Your task to perform on an android device: Search for seafood restaurants on Google Maps Image 0: 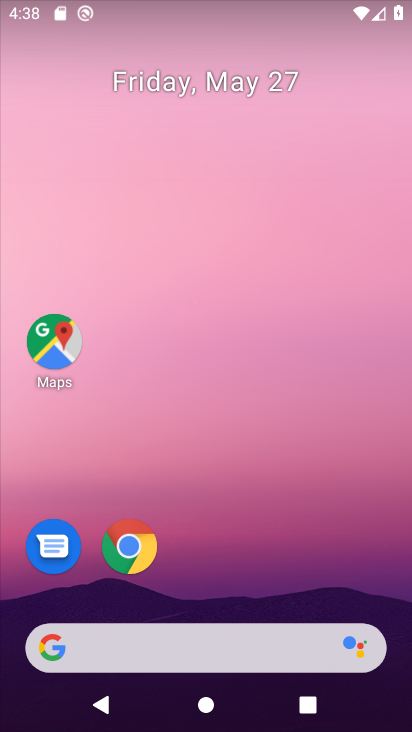
Step 0: drag from (250, 544) to (242, 64)
Your task to perform on an android device: Search for seafood restaurants on Google Maps Image 1: 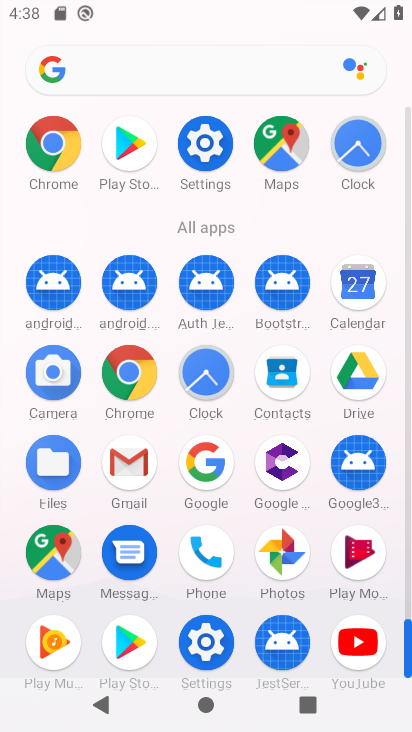
Step 1: drag from (16, 599) to (16, 281)
Your task to perform on an android device: Search for seafood restaurants on Google Maps Image 2: 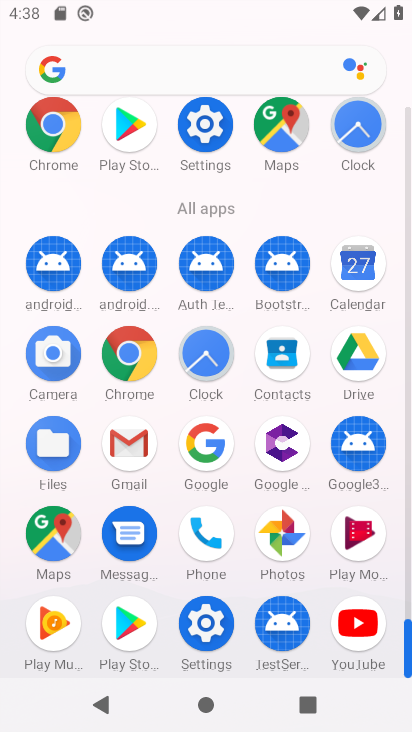
Step 2: click (52, 531)
Your task to perform on an android device: Search for seafood restaurants on Google Maps Image 3: 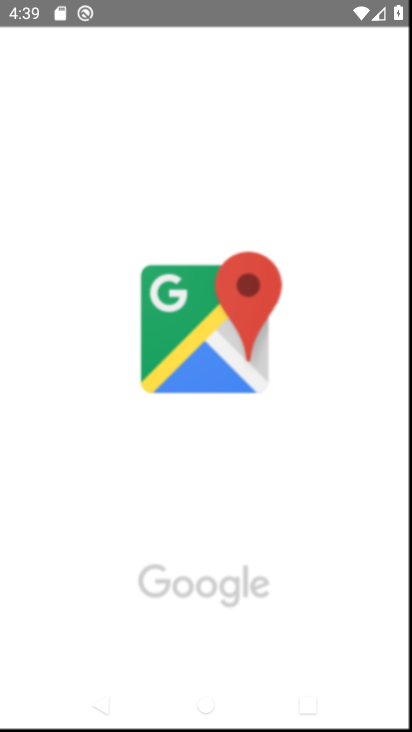
Step 3: task complete